Your task to perform on an android device: move an email to a new category in the gmail app Image 0: 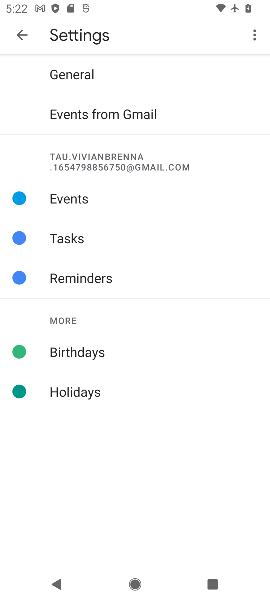
Step 0: press home button
Your task to perform on an android device: move an email to a new category in the gmail app Image 1: 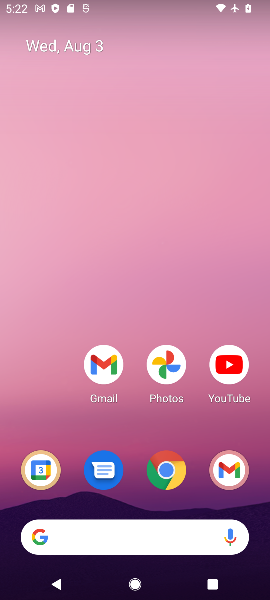
Step 1: drag from (66, 397) to (76, 42)
Your task to perform on an android device: move an email to a new category in the gmail app Image 2: 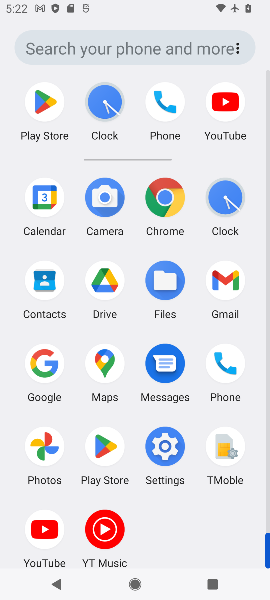
Step 2: click (223, 282)
Your task to perform on an android device: move an email to a new category in the gmail app Image 3: 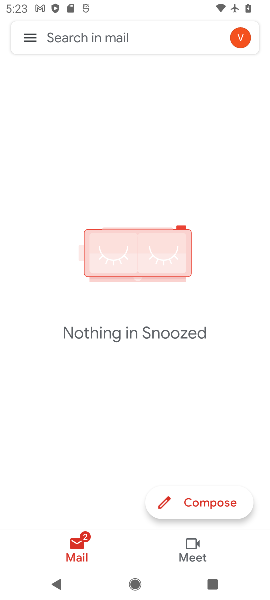
Step 3: click (32, 31)
Your task to perform on an android device: move an email to a new category in the gmail app Image 4: 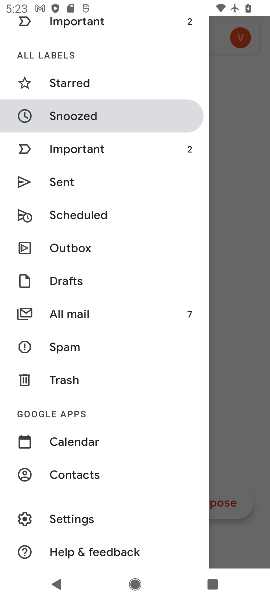
Step 4: click (70, 315)
Your task to perform on an android device: move an email to a new category in the gmail app Image 5: 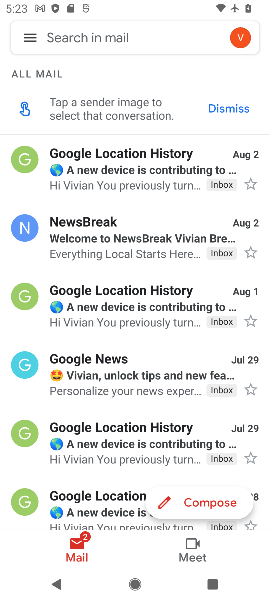
Step 5: click (141, 177)
Your task to perform on an android device: move an email to a new category in the gmail app Image 6: 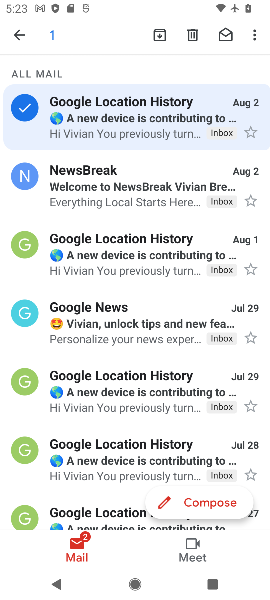
Step 6: click (258, 34)
Your task to perform on an android device: move an email to a new category in the gmail app Image 7: 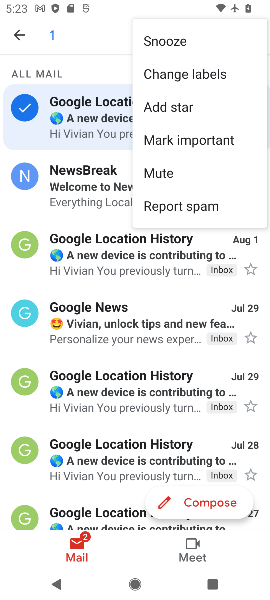
Step 7: click (185, 69)
Your task to perform on an android device: move an email to a new category in the gmail app Image 8: 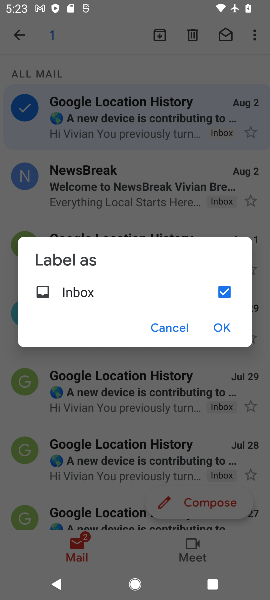
Step 8: task complete